Your task to perform on an android device: What's the weather going to be tomorrow? Image 0: 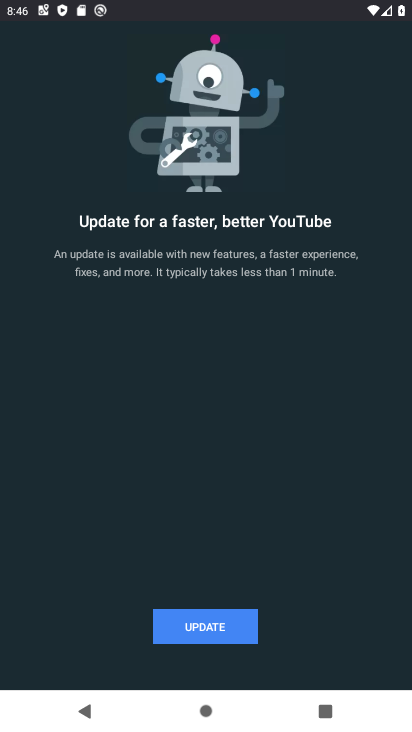
Step 0: press back button
Your task to perform on an android device: What's the weather going to be tomorrow? Image 1: 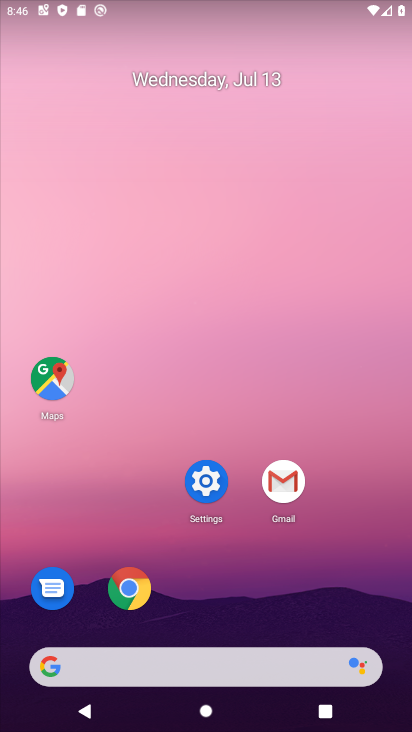
Step 1: task complete